Your task to perform on an android device: Search for the best vacuum on Amazon. Image 0: 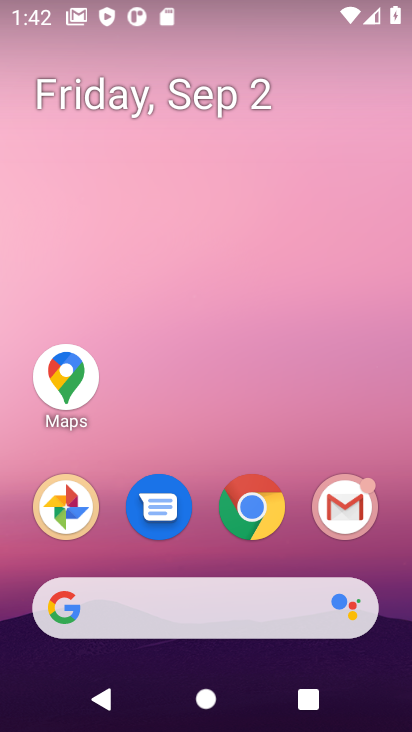
Step 0: click (247, 509)
Your task to perform on an android device: Search for the best vacuum on Amazon. Image 1: 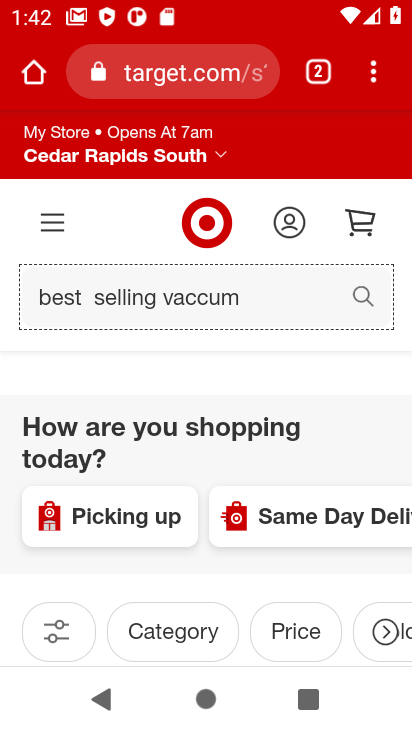
Step 1: click (213, 79)
Your task to perform on an android device: Search for the best vacuum on Amazon. Image 2: 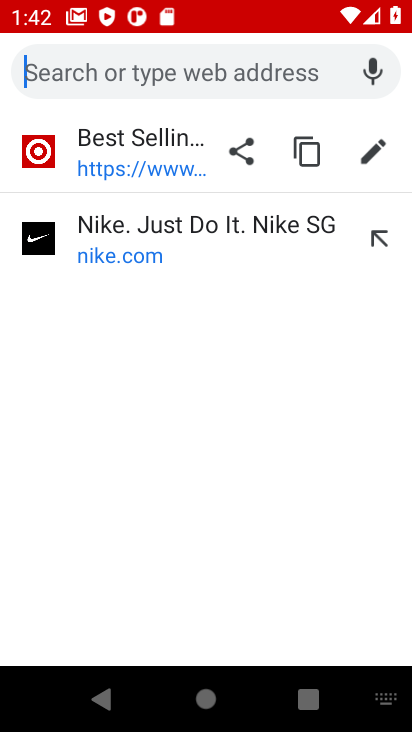
Step 2: type "amazon"
Your task to perform on an android device: Search for the best vacuum on Amazon. Image 3: 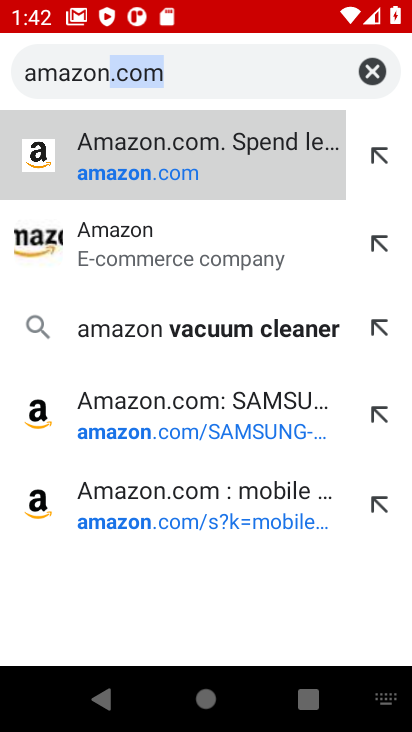
Step 3: click (177, 189)
Your task to perform on an android device: Search for the best vacuum on Amazon. Image 4: 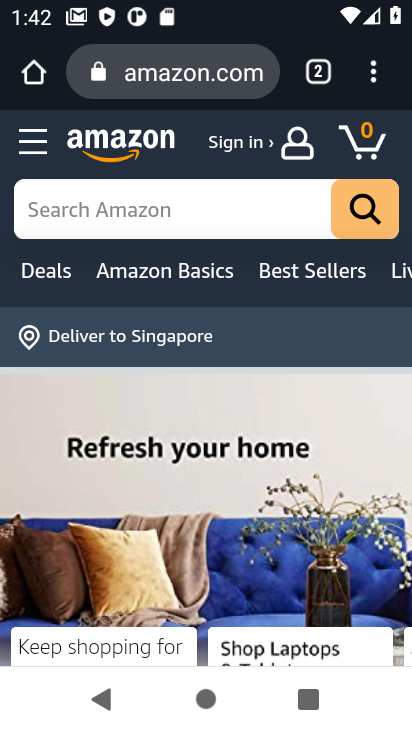
Step 4: click (188, 195)
Your task to perform on an android device: Search for the best vacuum on Amazon. Image 5: 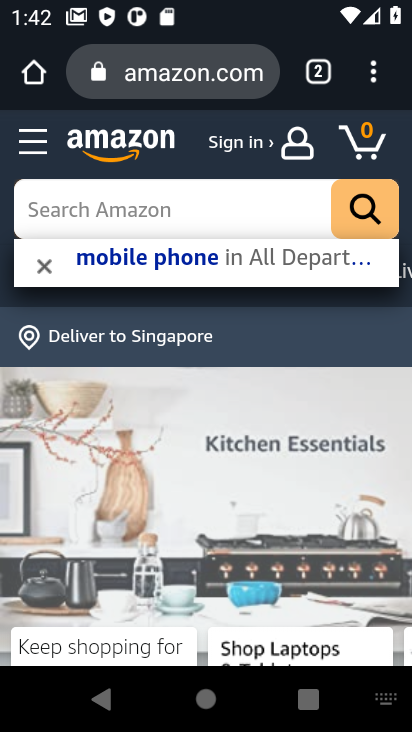
Step 5: type "vaccum"
Your task to perform on an android device: Search for the best vacuum on Amazon. Image 6: 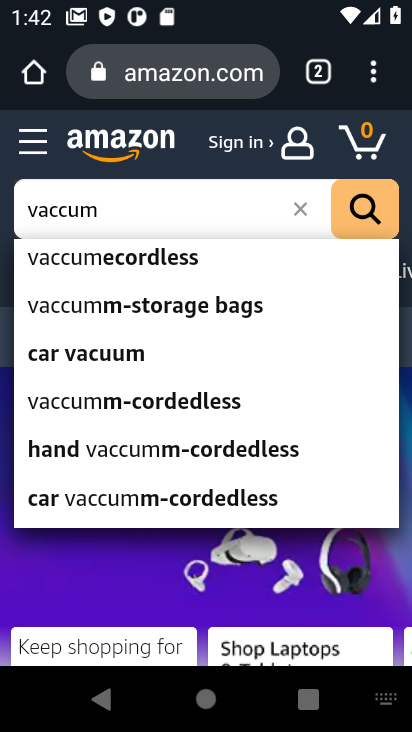
Step 6: click (123, 272)
Your task to perform on an android device: Search for the best vacuum on Amazon. Image 7: 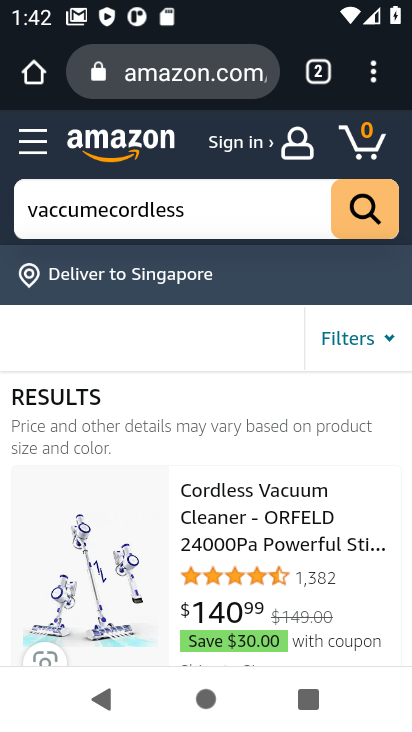
Step 7: task complete